Your task to perform on an android device: change the clock display to show seconds Image 0: 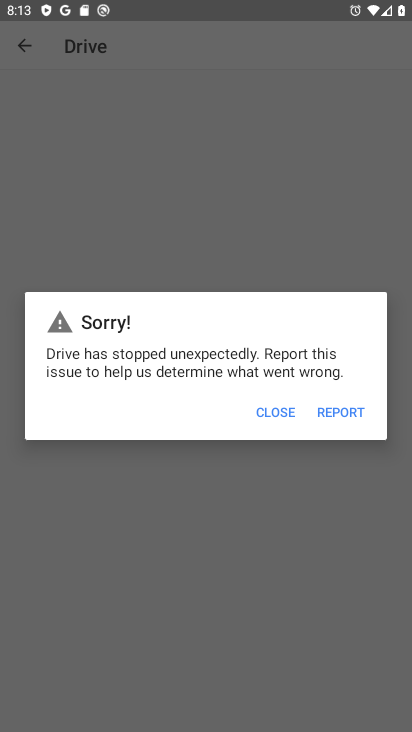
Step 0: press home button
Your task to perform on an android device: change the clock display to show seconds Image 1: 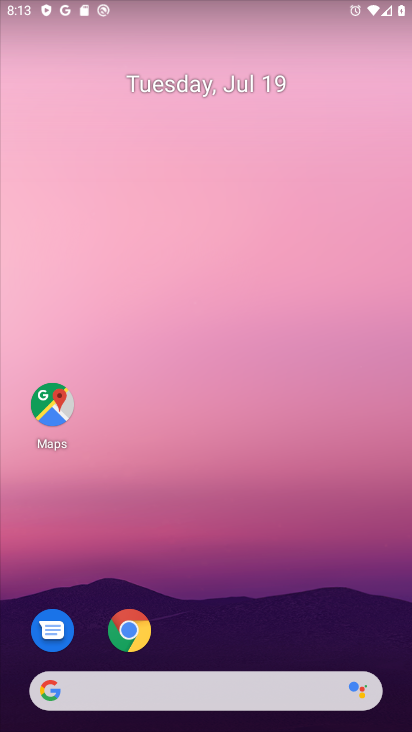
Step 1: drag from (269, 614) to (325, 132)
Your task to perform on an android device: change the clock display to show seconds Image 2: 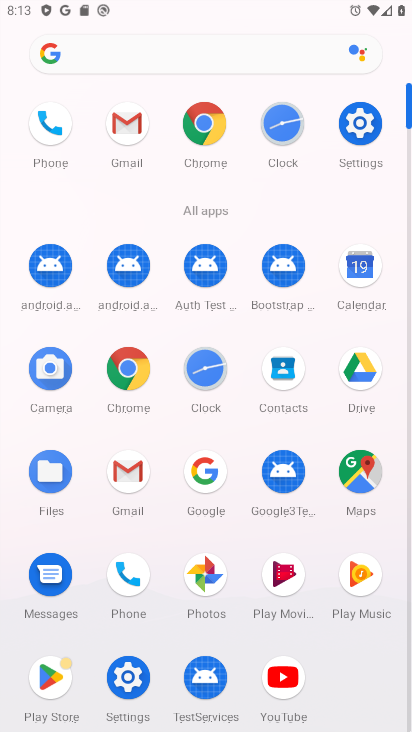
Step 2: click (221, 364)
Your task to perform on an android device: change the clock display to show seconds Image 3: 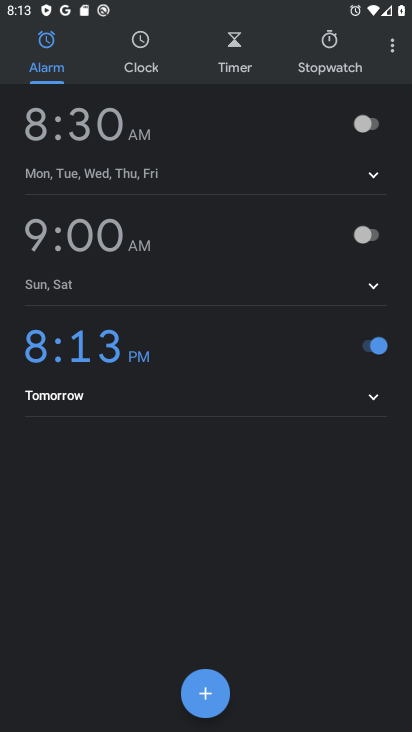
Step 3: click (394, 50)
Your task to perform on an android device: change the clock display to show seconds Image 4: 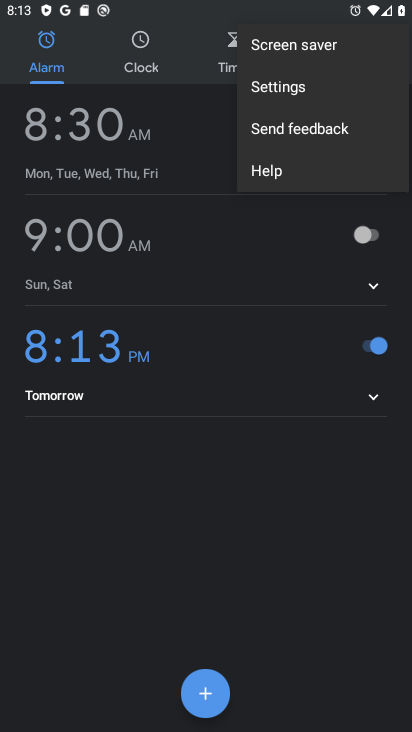
Step 4: click (319, 83)
Your task to perform on an android device: change the clock display to show seconds Image 5: 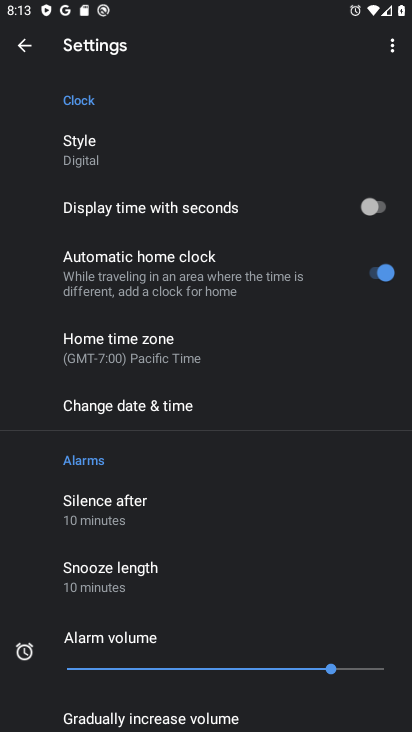
Step 5: click (377, 218)
Your task to perform on an android device: change the clock display to show seconds Image 6: 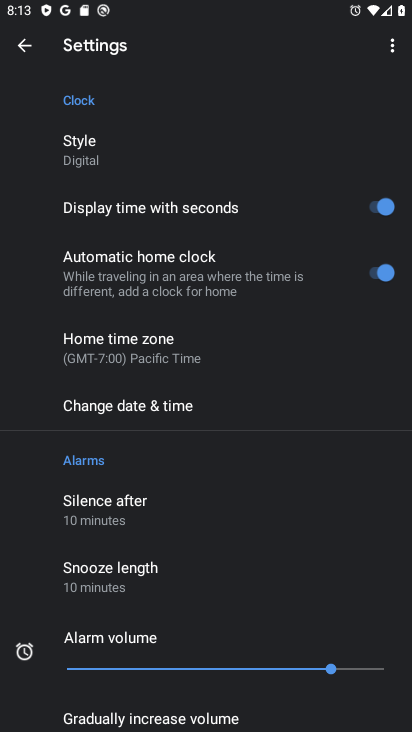
Step 6: task complete